Your task to perform on an android device: Go to Yahoo.com Image 0: 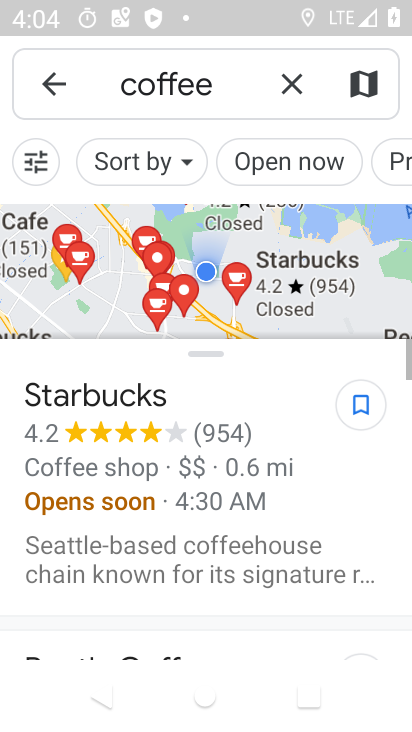
Step 0: press home button
Your task to perform on an android device: Go to Yahoo.com Image 1: 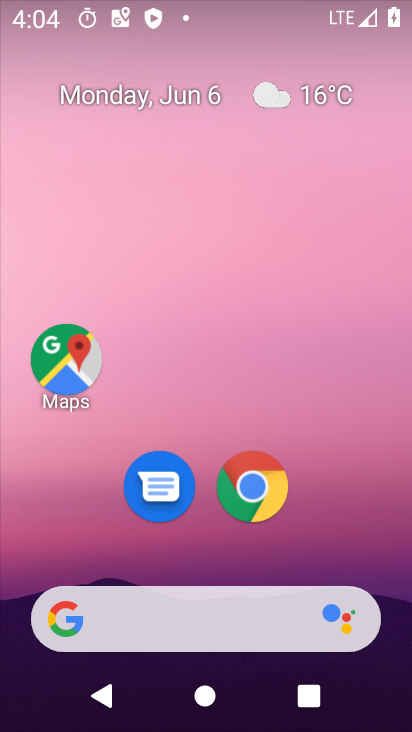
Step 1: click (255, 486)
Your task to perform on an android device: Go to Yahoo.com Image 2: 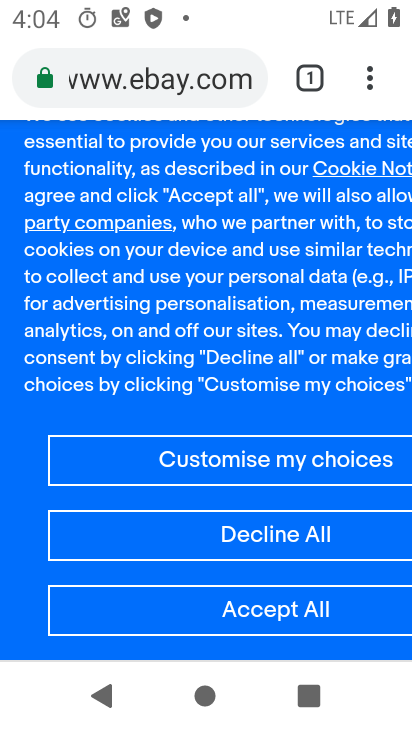
Step 2: click (225, 78)
Your task to perform on an android device: Go to Yahoo.com Image 3: 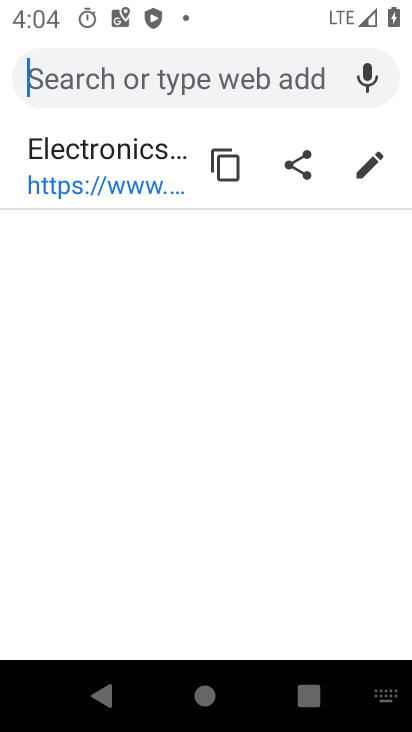
Step 3: type "yahoo.com"
Your task to perform on an android device: Go to Yahoo.com Image 4: 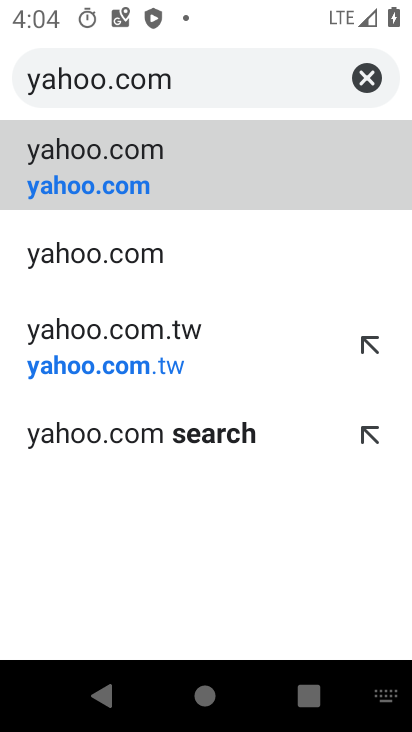
Step 4: click (105, 196)
Your task to perform on an android device: Go to Yahoo.com Image 5: 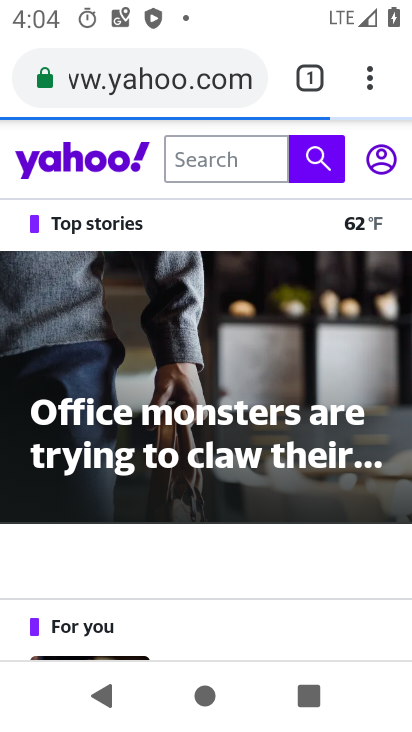
Step 5: task complete